Your task to perform on an android device: turn pop-ups off in chrome Image 0: 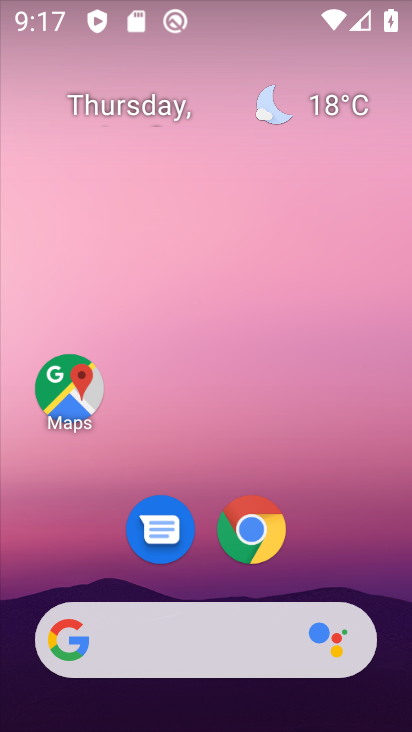
Step 0: click (249, 536)
Your task to perform on an android device: turn pop-ups off in chrome Image 1: 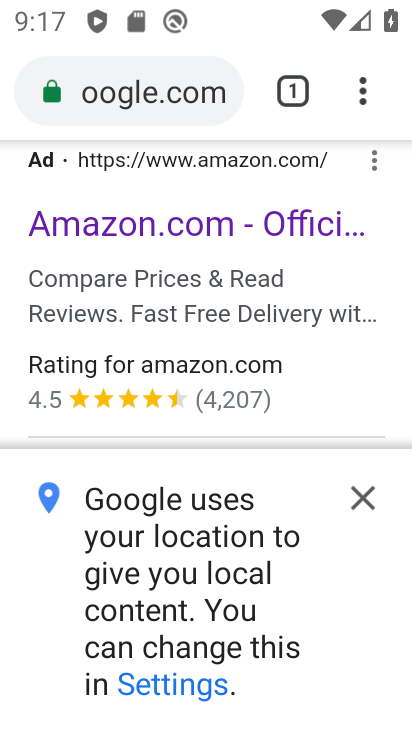
Step 1: click (358, 90)
Your task to perform on an android device: turn pop-ups off in chrome Image 2: 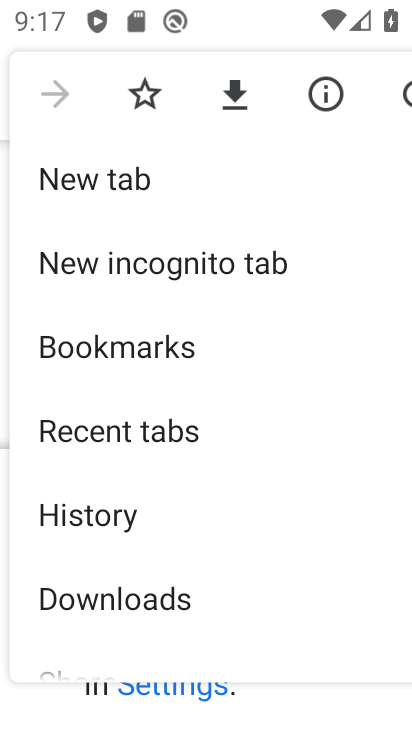
Step 2: drag from (245, 626) to (256, 273)
Your task to perform on an android device: turn pop-ups off in chrome Image 3: 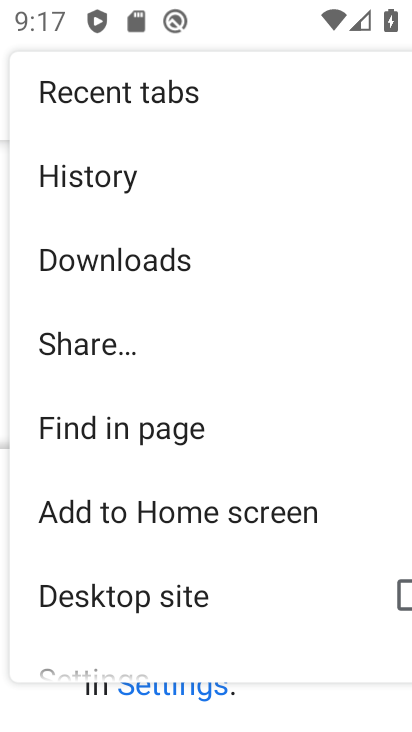
Step 3: drag from (259, 539) to (279, 267)
Your task to perform on an android device: turn pop-ups off in chrome Image 4: 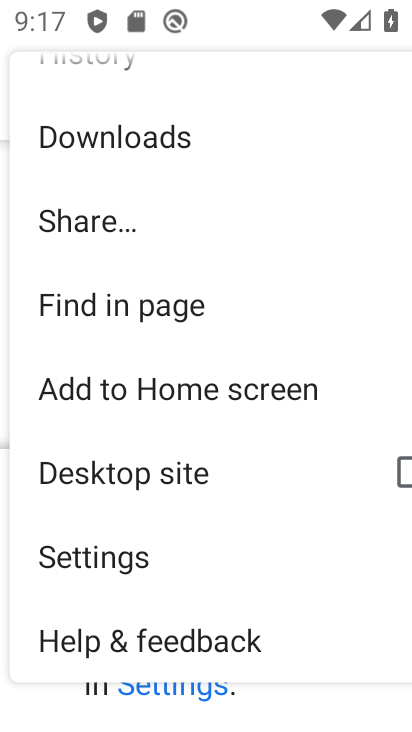
Step 4: click (96, 559)
Your task to perform on an android device: turn pop-ups off in chrome Image 5: 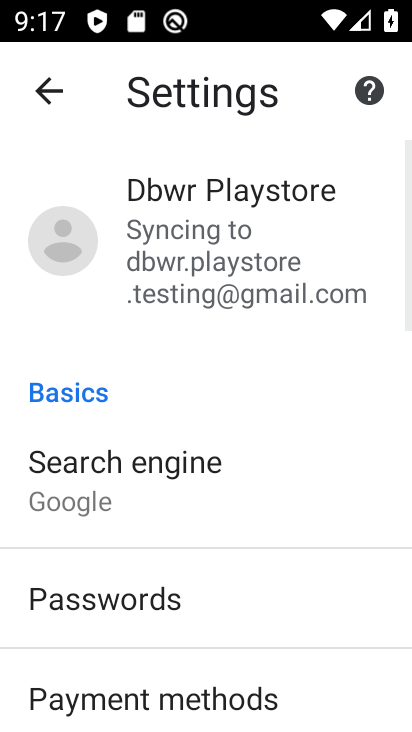
Step 5: drag from (303, 696) to (315, 271)
Your task to perform on an android device: turn pop-ups off in chrome Image 6: 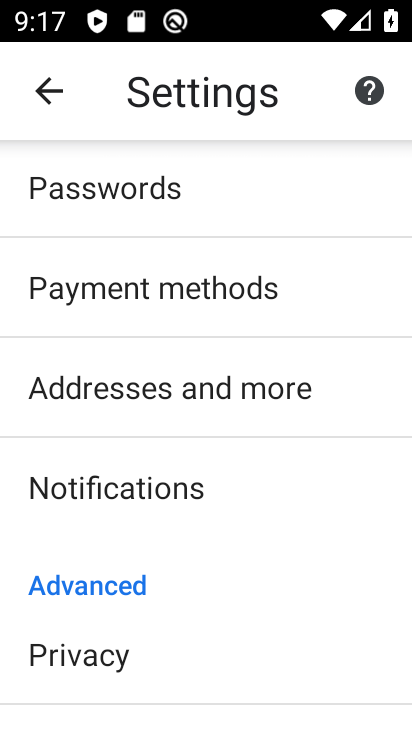
Step 6: drag from (225, 670) to (261, 351)
Your task to perform on an android device: turn pop-ups off in chrome Image 7: 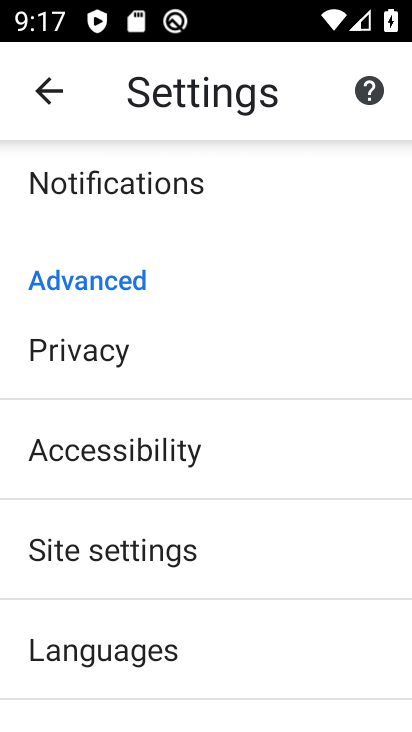
Step 7: drag from (270, 653) to (287, 312)
Your task to perform on an android device: turn pop-ups off in chrome Image 8: 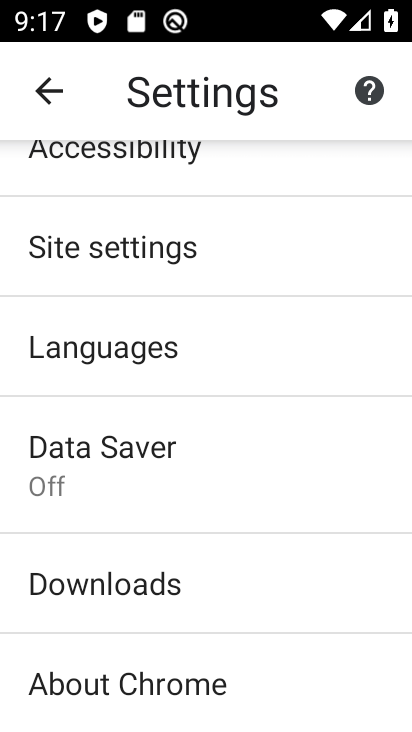
Step 8: click (107, 258)
Your task to perform on an android device: turn pop-ups off in chrome Image 9: 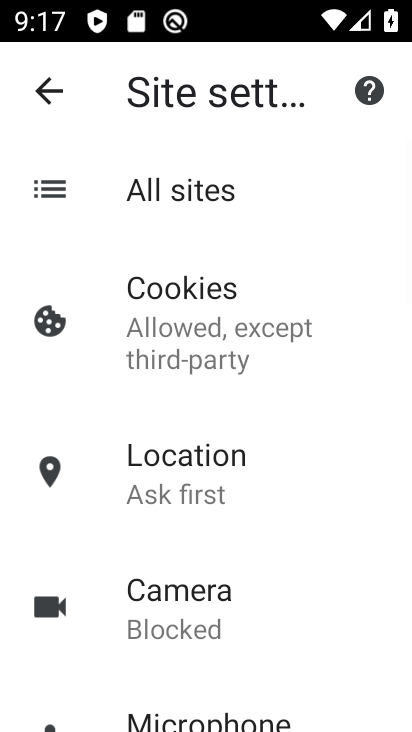
Step 9: drag from (296, 696) to (294, 332)
Your task to perform on an android device: turn pop-ups off in chrome Image 10: 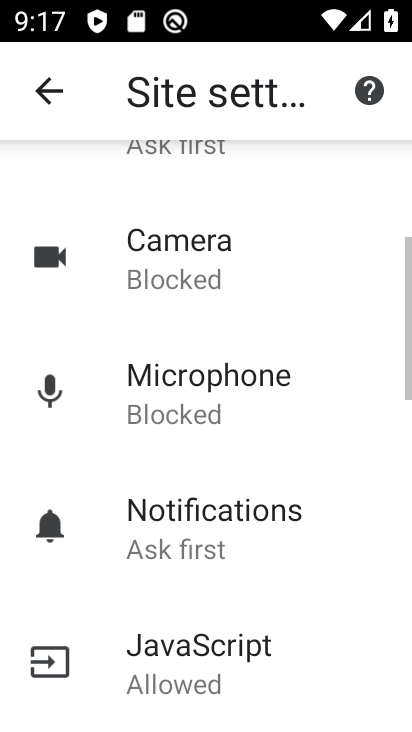
Step 10: drag from (300, 677) to (287, 362)
Your task to perform on an android device: turn pop-ups off in chrome Image 11: 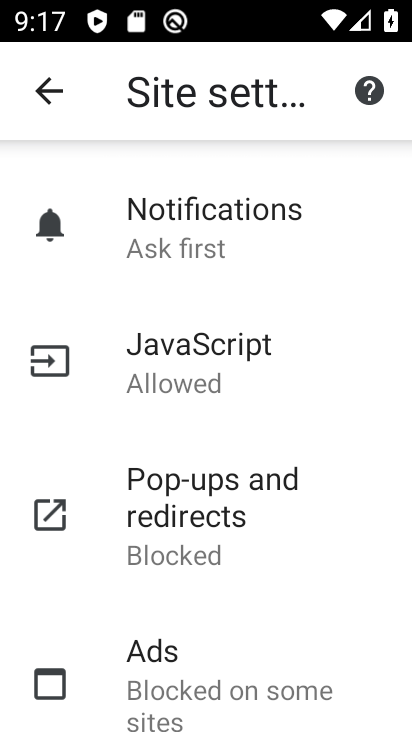
Step 11: click (166, 479)
Your task to perform on an android device: turn pop-ups off in chrome Image 12: 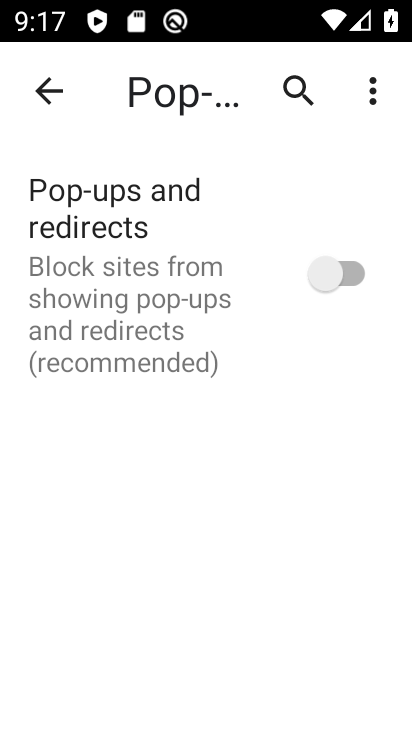
Step 12: task complete